Your task to perform on an android device: Go to sound settings Image 0: 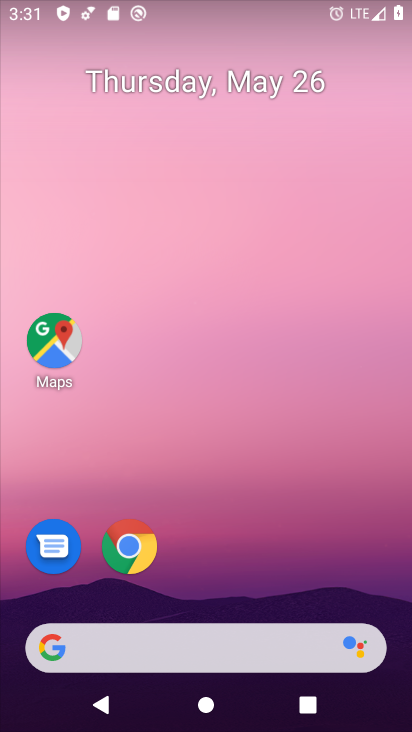
Step 0: drag from (261, 490) to (322, 19)
Your task to perform on an android device: Go to sound settings Image 1: 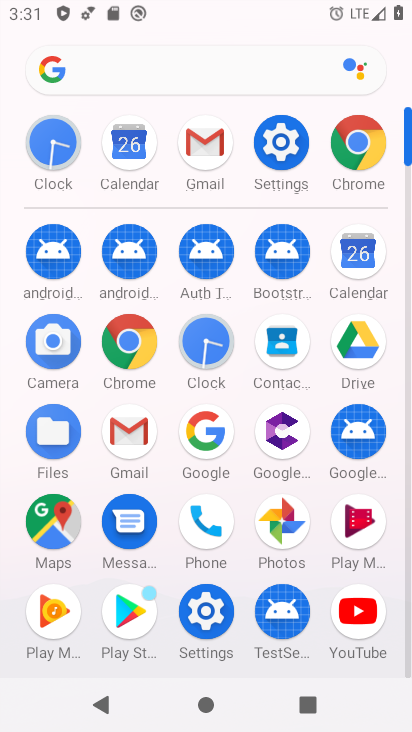
Step 1: click (277, 134)
Your task to perform on an android device: Go to sound settings Image 2: 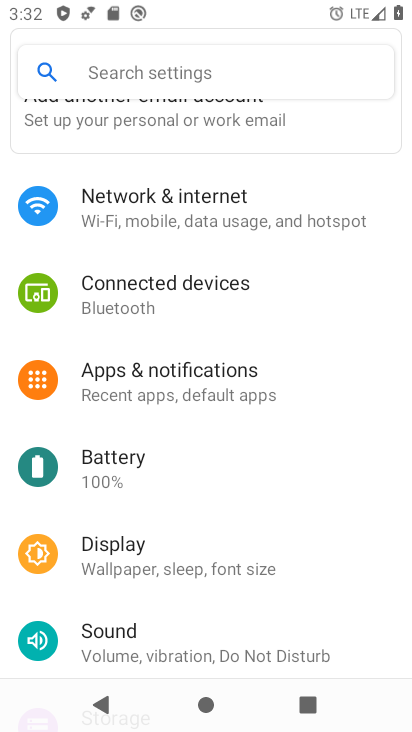
Step 2: click (155, 644)
Your task to perform on an android device: Go to sound settings Image 3: 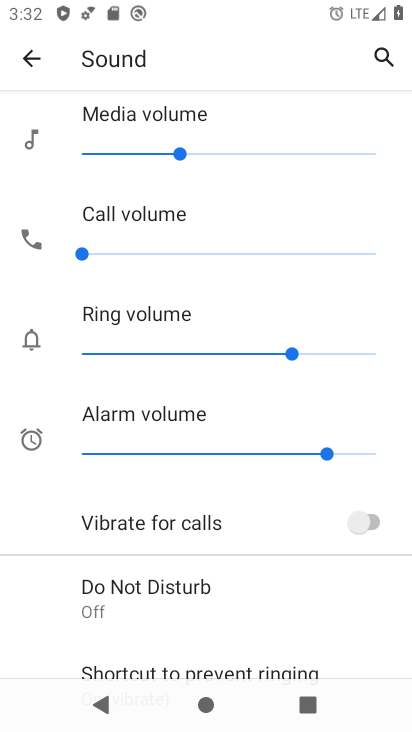
Step 3: task complete